Your task to perform on an android device: Clear the cart on costco. Search for logitech g903 on costco, select the first entry, add it to the cart, then select checkout. Image 0: 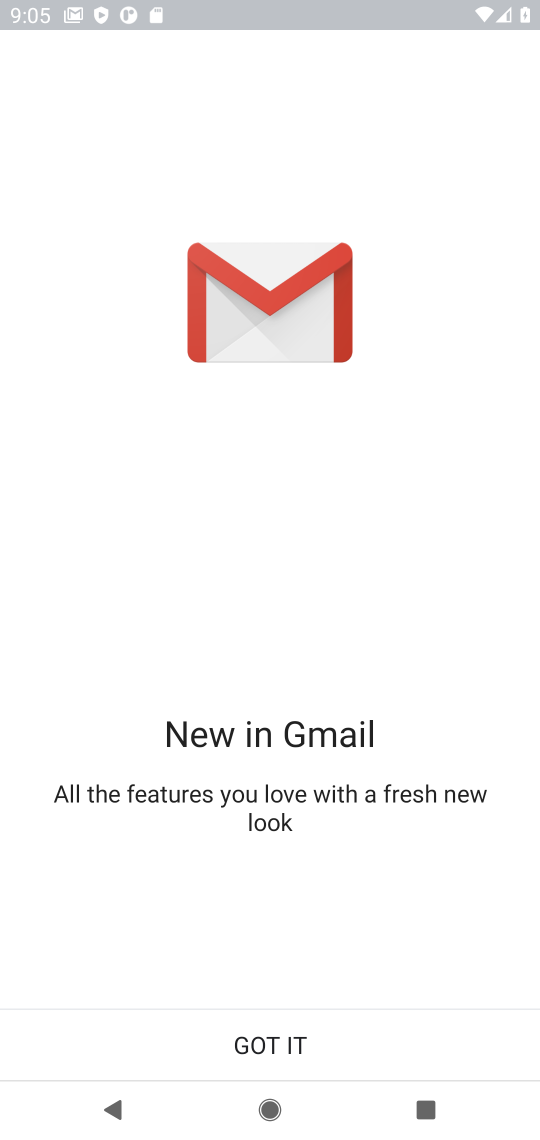
Step 0: press home button
Your task to perform on an android device: Clear the cart on costco. Search for logitech g903 on costco, select the first entry, add it to the cart, then select checkout. Image 1: 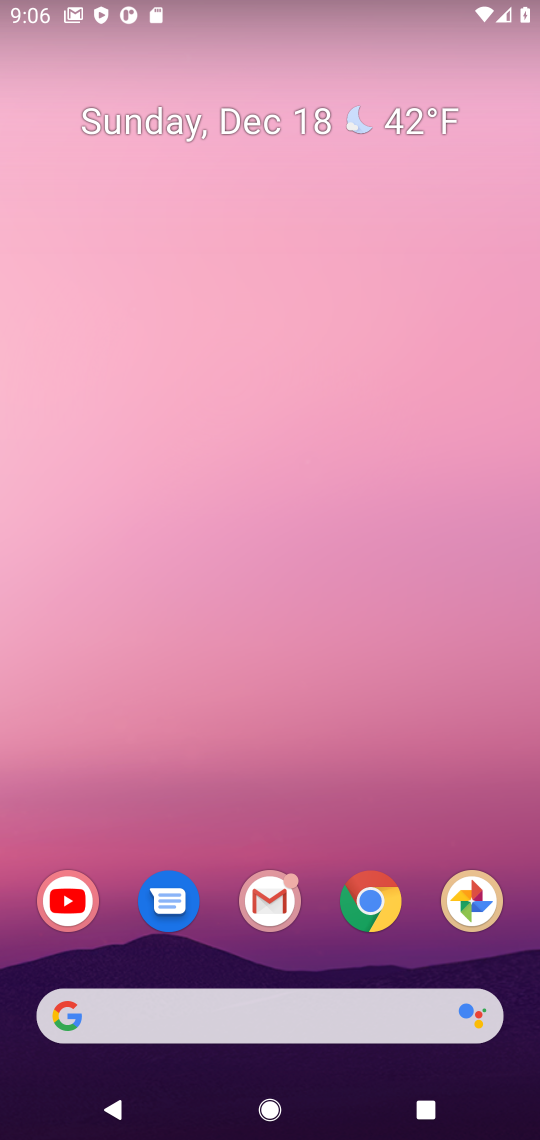
Step 1: click (346, 927)
Your task to perform on an android device: Clear the cart on costco. Search for logitech g903 on costco, select the first entry, add it to the cart, then select checkout. Image 2: 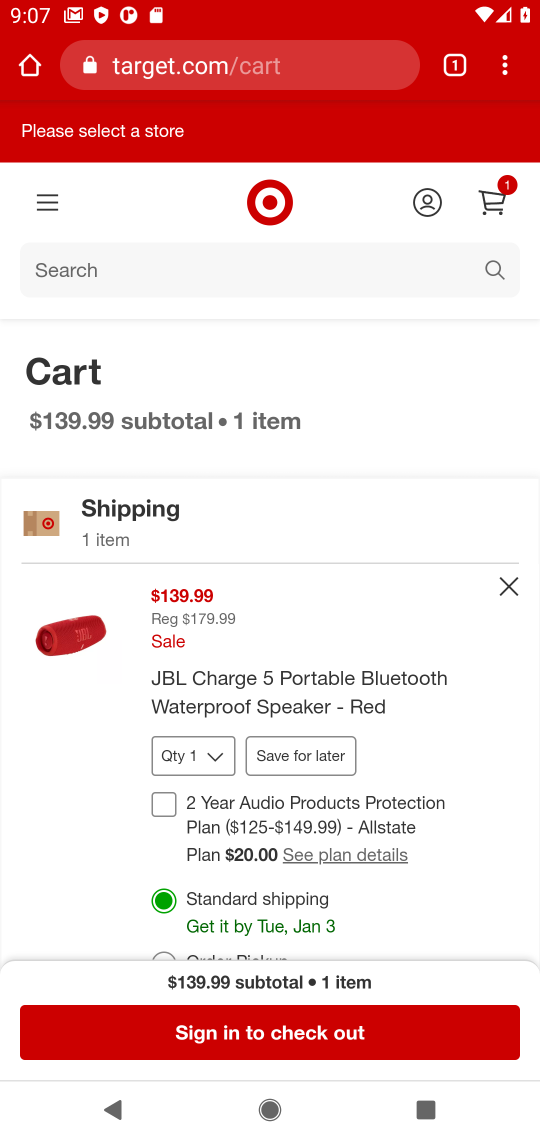
Step 2: click (67, 271)
Your task to perform on an android device: Clear the cart on costco. Search for logitech g903 on costco, select the first entry, add it to the cart, then select checkout. Image 3: 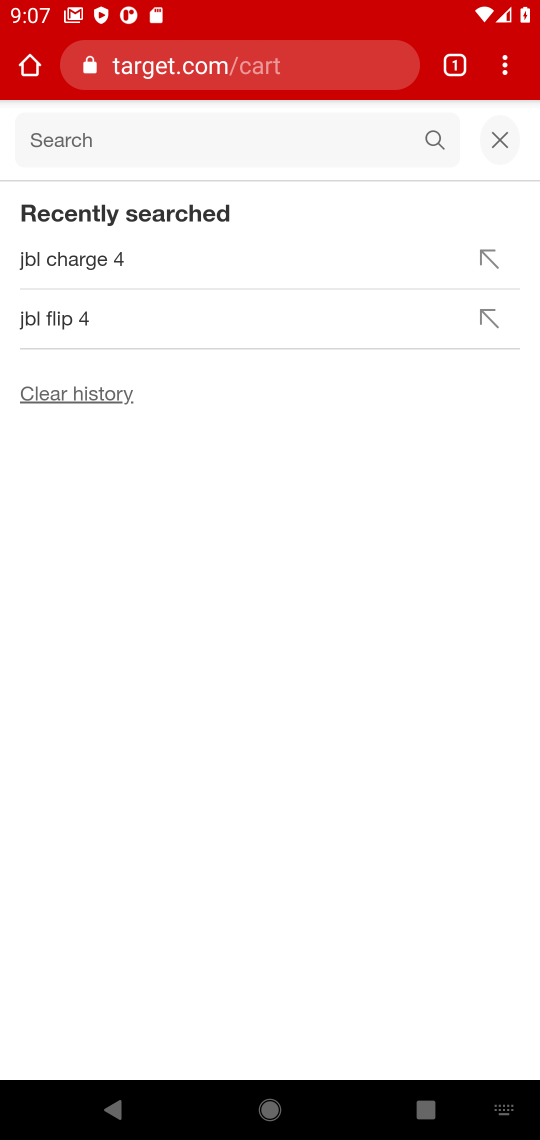
Step 3: task complete